Your task to perform on an android device: Open network settings Image 0: 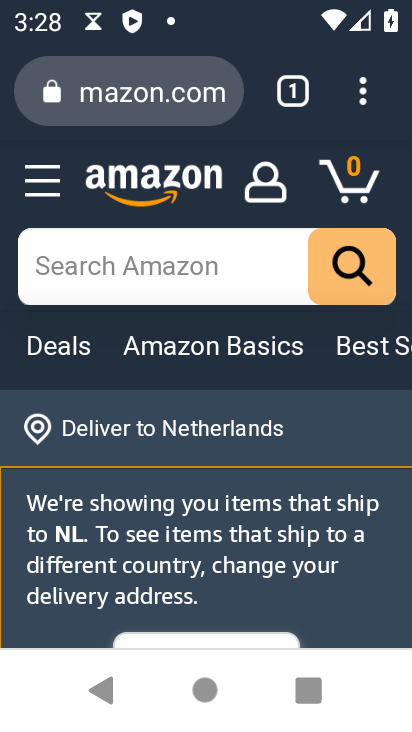
Step 0: press home button
Your task to perform on an android device: Open network settings Image 1: 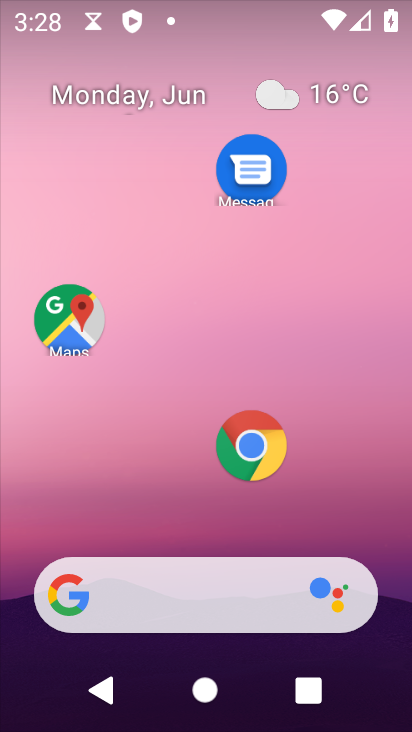
Step 1: drag from (69, 539) to (178, 22)
Your task to perform on an android device: Open network settings Image 2: 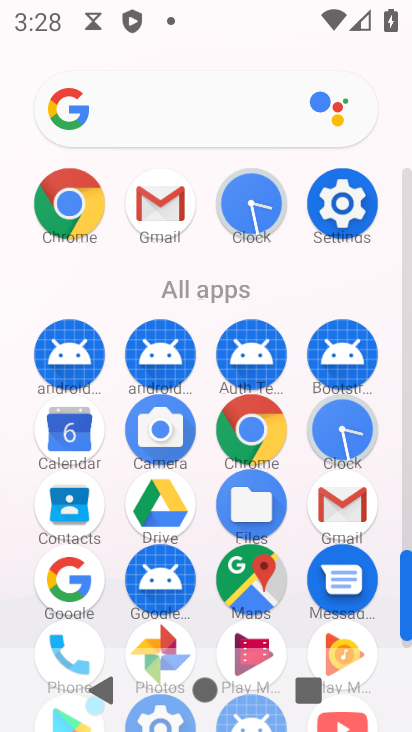
Step 2: drag from (85, 561) to (183, 252)
Your task to perform on an android device: Open network settings Image 3: 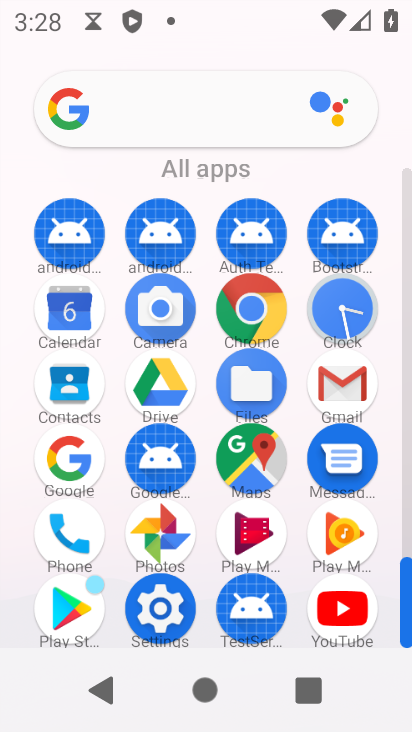
Step 3: click (159, 620)
Your task to perform on an android device: Open network settings Image 4: 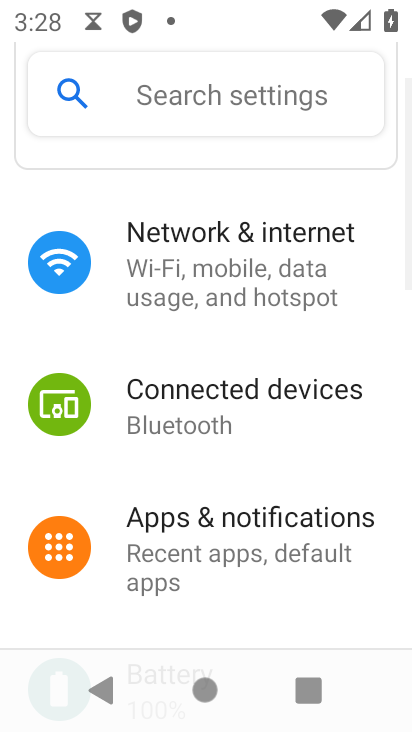
Step 4: drag from (224, 242) to (227, 587)
Your task to perform on an android device: Open network settings Image 5: 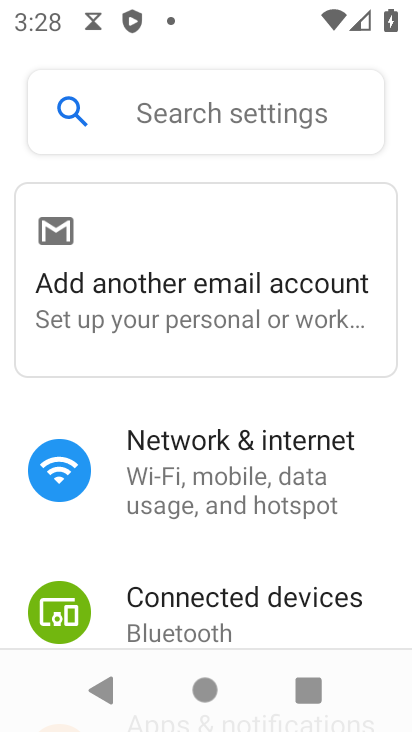
Step 5: click (209, 507)
Your task to perform on an android device: Open network settings Image 6: 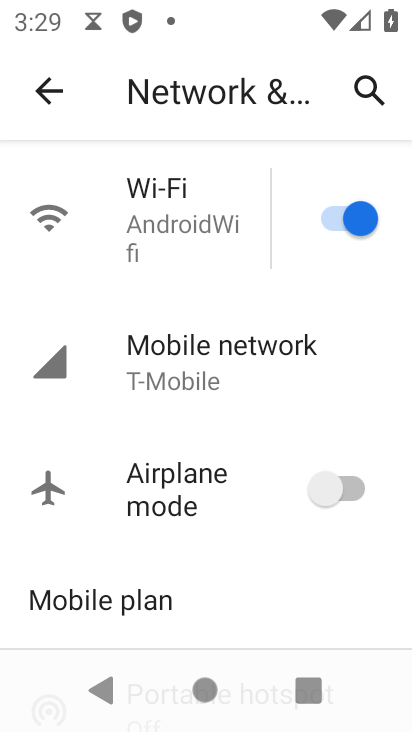
Step 6: click (213, 382)
Your task to perform on an android device: Open network settings Image 7: 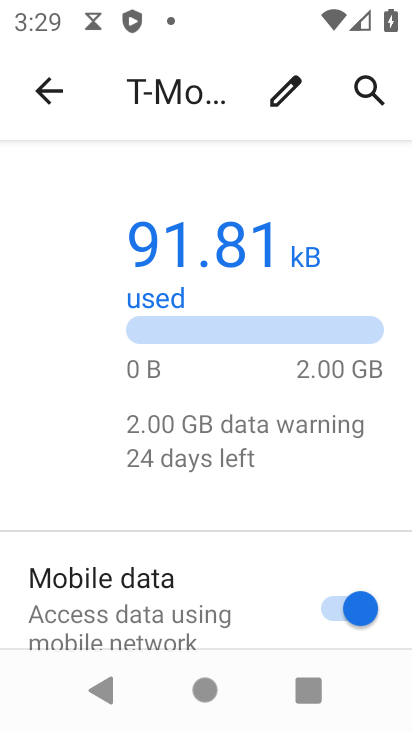
Step 7: task complete